Your task to perform on an android device: How much does a 3 bedroom apartment rent for in Atlanta? Image 0: 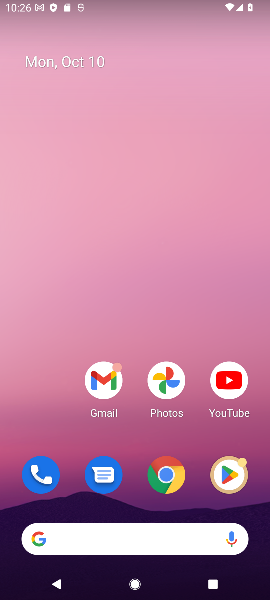
Step 0: click (158, 493)
Your task to perform on an android device: How much does a 3 bedroom apartment rent for in Atlanta? Image 1: 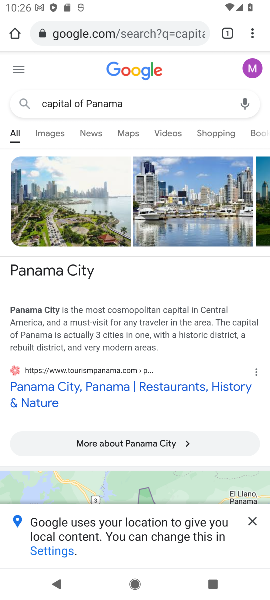
Step 1: click (192, 108)
Your task to perform on an android device: How much does a 3 bedroom apartment rent for in Atlanta? Image 2: 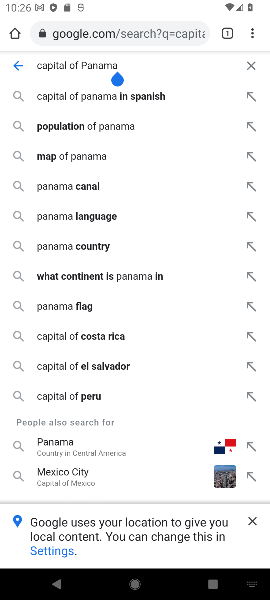
Step 2: click (244, 67)
Your task to perform on an android device: How much does a 3 bedroom apartment rent for in Atlanta? Image 3: 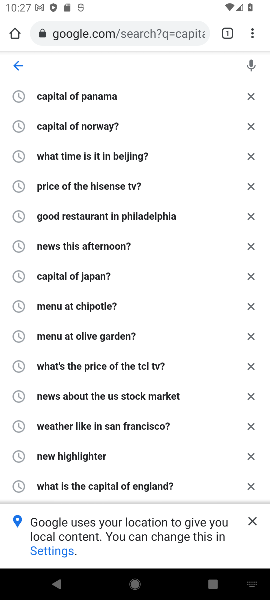
Step 3: type "How much does a 3 bedroom apartment rent for in Atlanta?"
Your task to perform on an android device: How much does a 3 bedroom apartment rent for in Atlanta? Image 4: 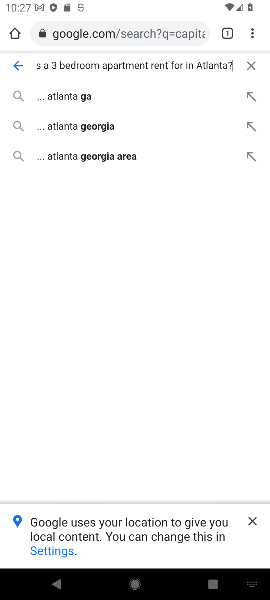
Step 4: press enter
Your task to perform on an android device: How much does a 3 bedroom apartment rent for in Atlanta? Image 5: 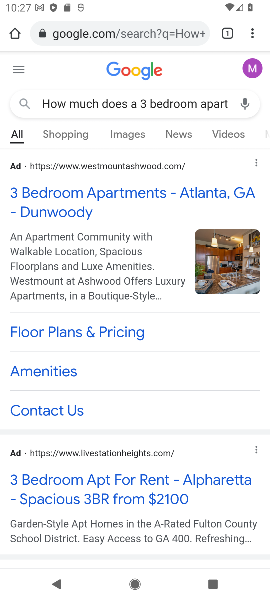
Step 5: drag from (74, 510) to (83, 405)
Your task to perform on an android device: How much does a 3 bedroom apartment rent for in Atlanta? Image 6: 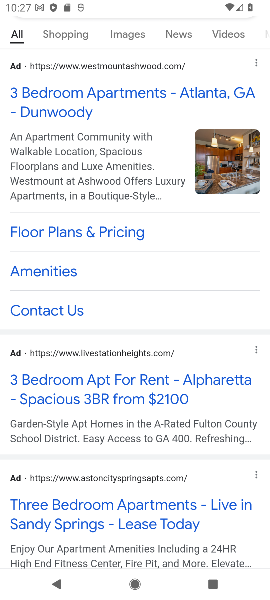
Step 6: click (86, 398)
Your task to perform on an android device: How much does a 3 bedroom apartment rent for in Atlanta? Image 7: 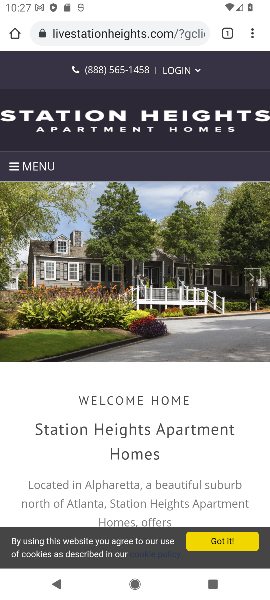
Step 7: task complete